Your task to perform on an android device: What's on my calendar today? Image 0: 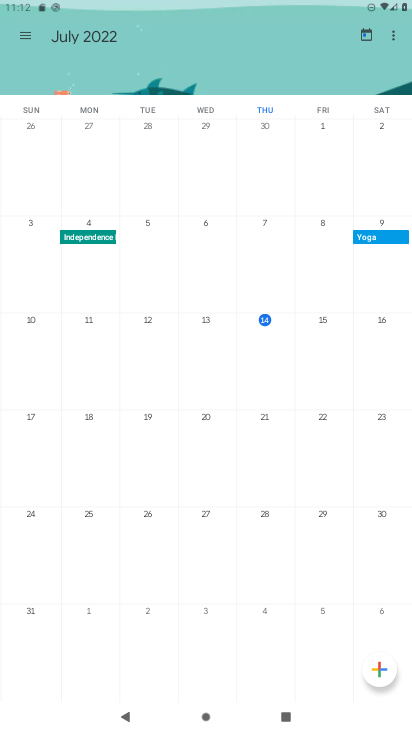
Step 0: press home button
Your task to perform on an android device: What's on my calendar today? Image 1: 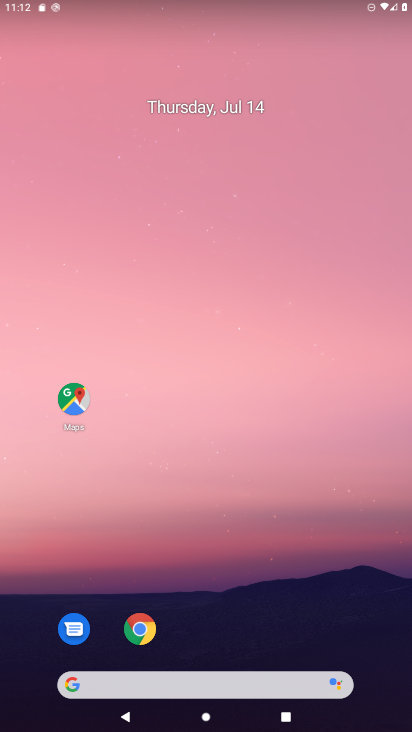
Step 1: drag from (260, 589) to (232, 158)
Your task to perform on an android device: What's on my calendar today? Image 2: 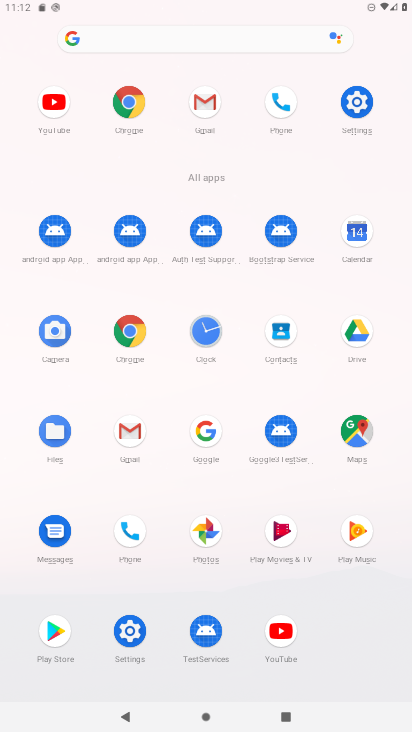
Step 2: drag from (225, 473) to (201, 376)
Your task to perform on an android device: What's on my calendar today? Image 3: 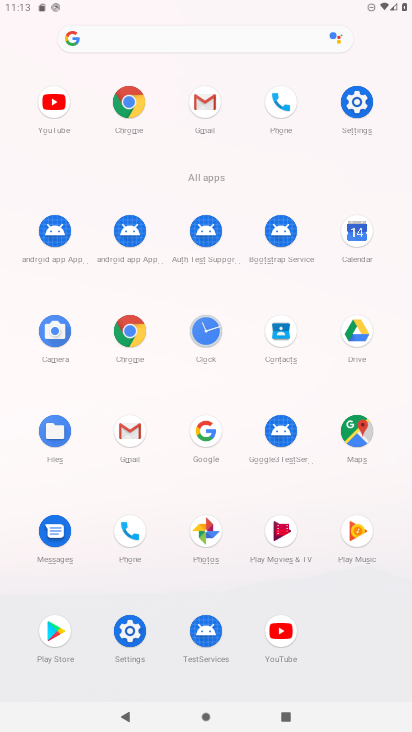
Step 3: click (344, 250)
Your task to perform on an android device: What's on my calendar today? Image 4: 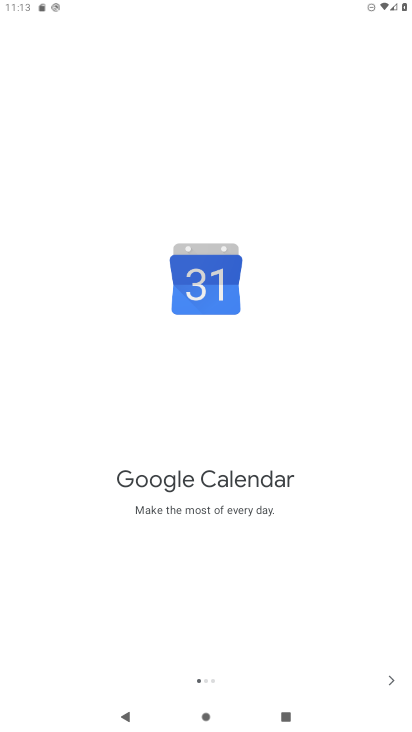
Step 4: click (392, 678)
Your task to perform on an android device: What's on my calendar today? Image 5: 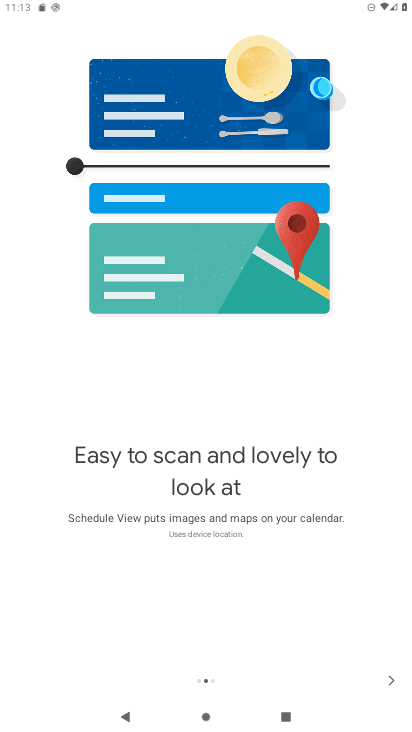
Step 5: click (389, 680)
Your task to perform on an android device: What's on my calendar today? Image 6: 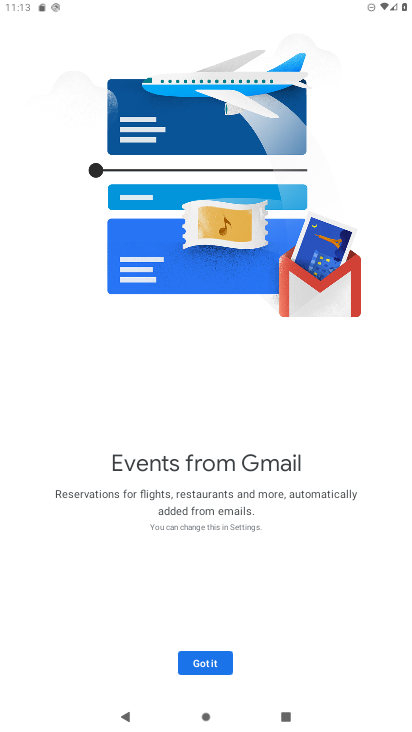
Step 6: click (212, 662)
Your task to perform on an android device: What's on my calendar today? Image 7: 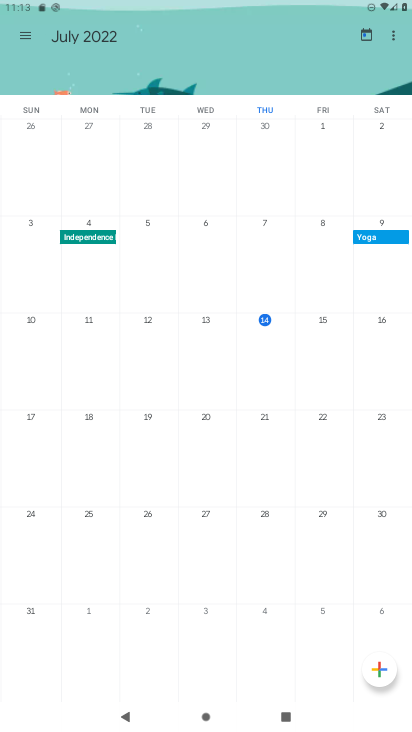
Step 7: click (258, 341)
Your task to perform on an android device: What's on my calendar today? Image 8: 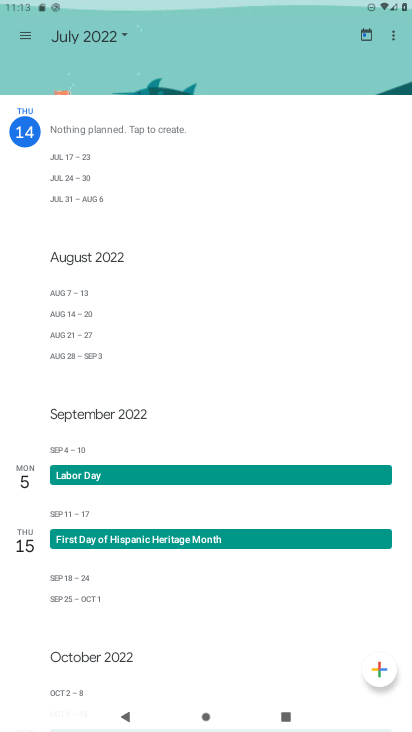
Step 8: task complete